Your task to perform on an android device: move a message to another label in the gmail app Image 0: 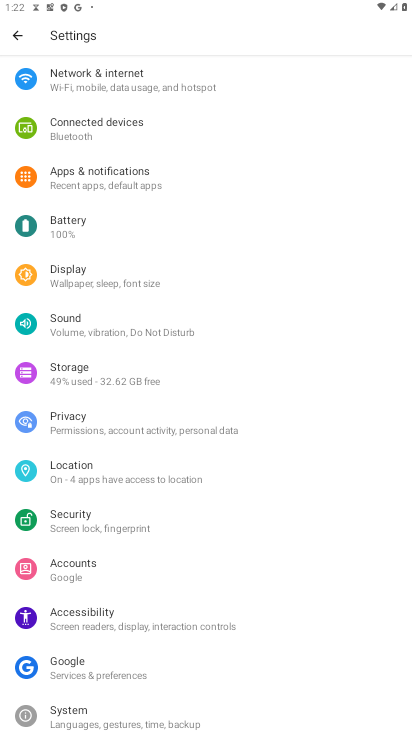
Step 0: press home button
Your task to perform on an android device: move a message to another label in the gmail app Image 1: 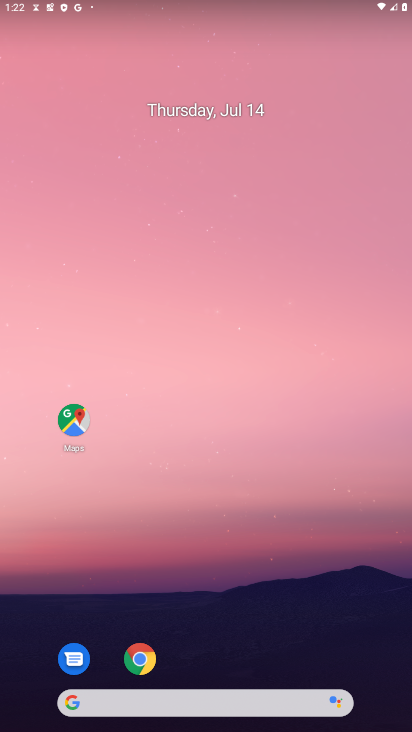
Step 1: drag from (266, 227) to (348, 63)
Your task to perform on an android device: move a message to another label in the gmail app Image 2: 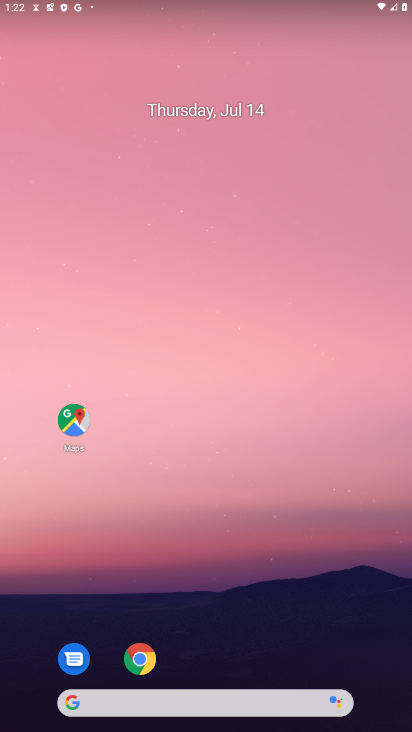
Step 2: drag from (62, 641) to (322, 143)
Your task to perform on an android device: move a message to another label in the gmail app Image 3: 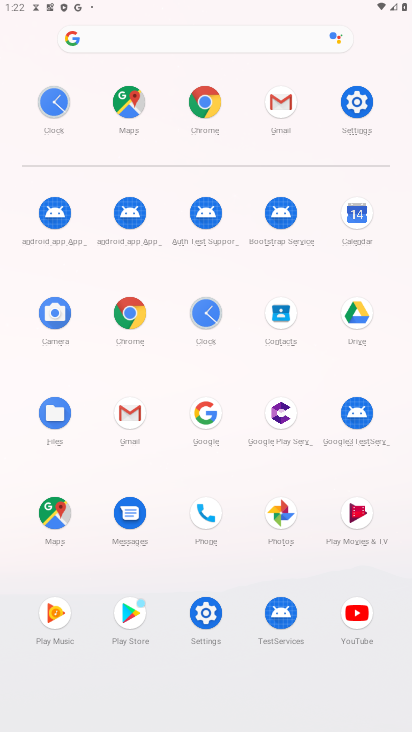
Step 3: click (142, 422)
Your task to perform on an android device: move a message to another label in the gmail app Image 4: 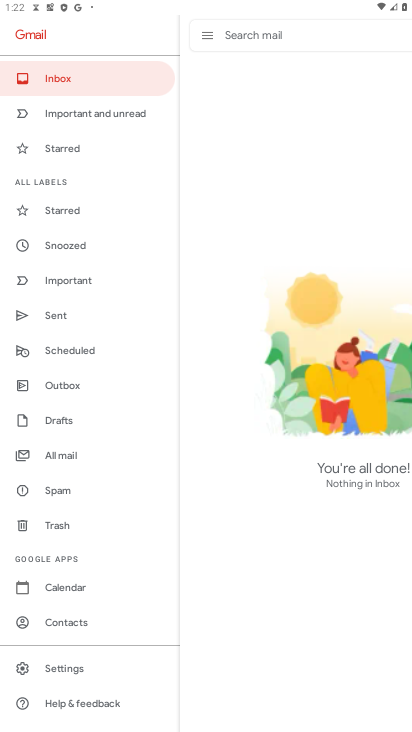
Step 4: task complete